Your task to perform on an android device: read, delete, or share a saved page in the chrome app Image 0: 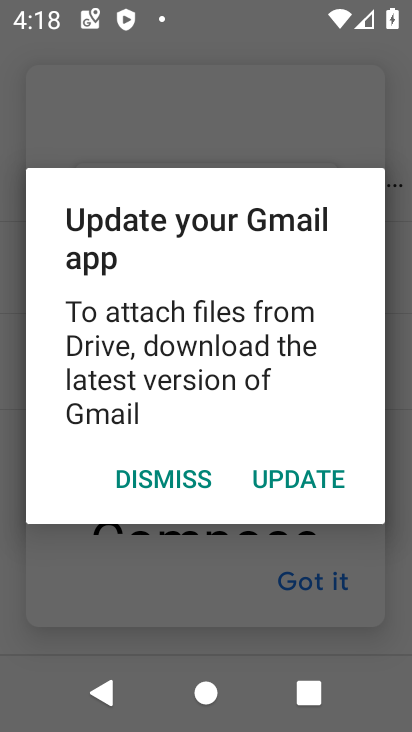
Step 0: press home button
Your task to perform on an android device: read, delete, or share a saved page in the chrome app Image 1: 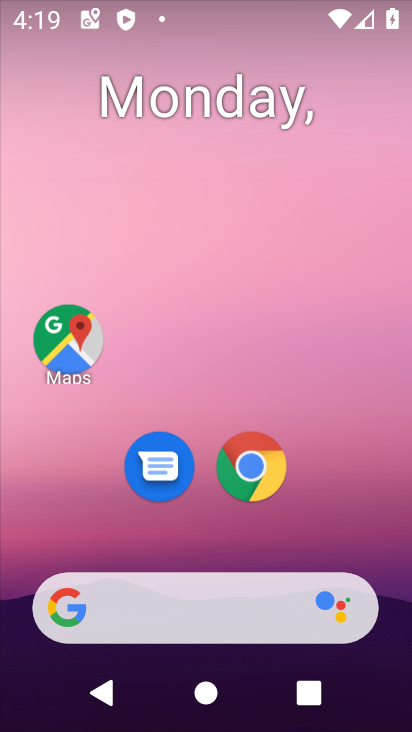
Step 1: click (256, 462)
Your task to perform on an android device: read, delete, or share a saved page in the chrome app Image 2: 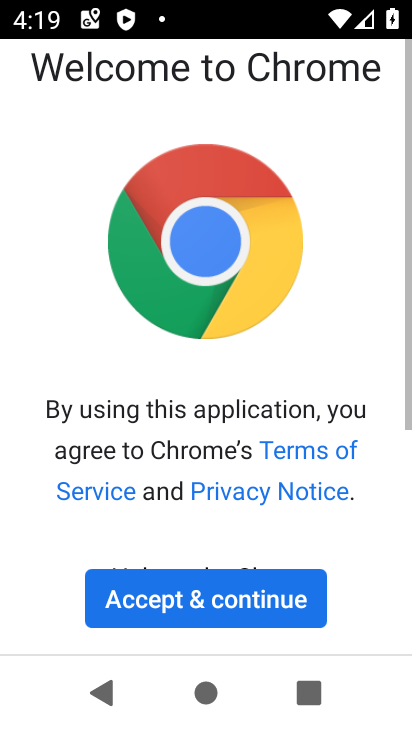
Step 2: click (264, 585)
Your task to perform on an android device: read, delete, or share a saved page in the chrome app Image 3: 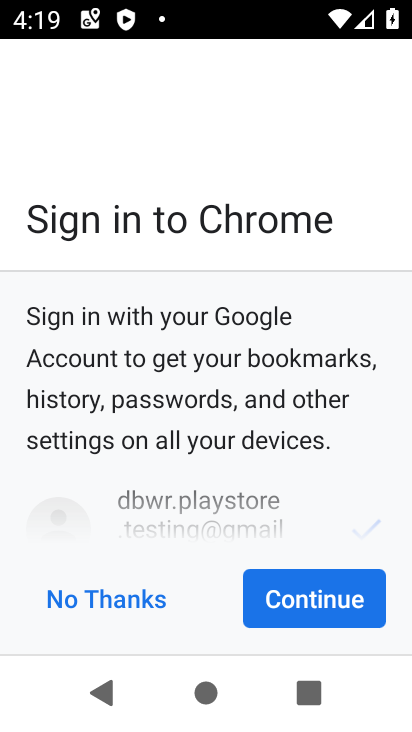
Step 3: click (265, 585)
Your task to perform on an android device: read, delete, or share a saved page in the chrome app Image 4: 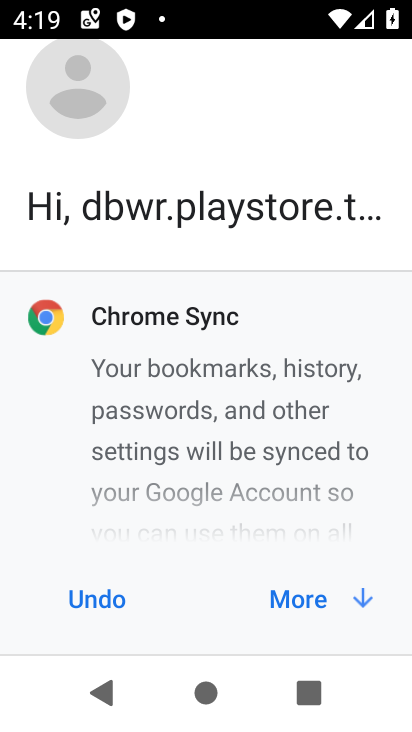
Step 4: click (266, 583)
Your task to perform on an android device: read, delete, or share a saved page in the chrome app Image 5: 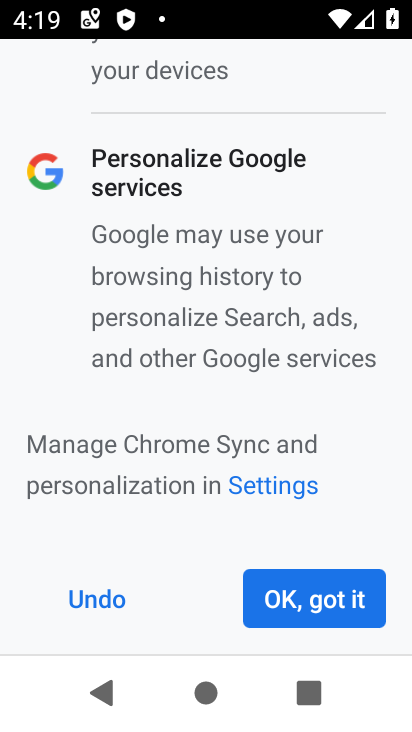
Step 5: click (318, 596)
Your task to perform on an android device: read, delete, or share a saved page in the chrome app Image 6: 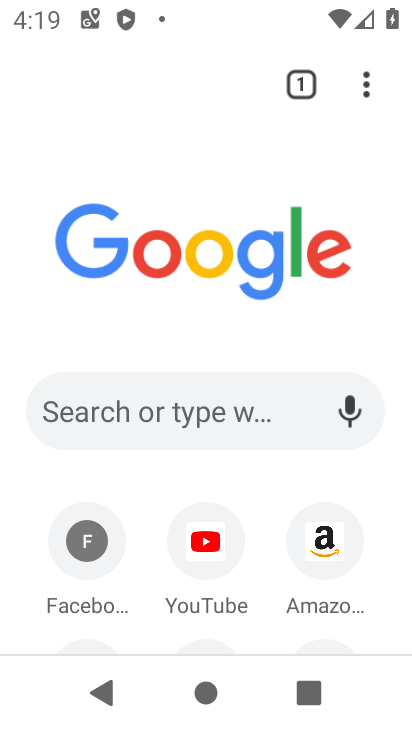
Step 6: task complete